Your task to perform on an android device: Is it going to rain this weekend? Image 0: 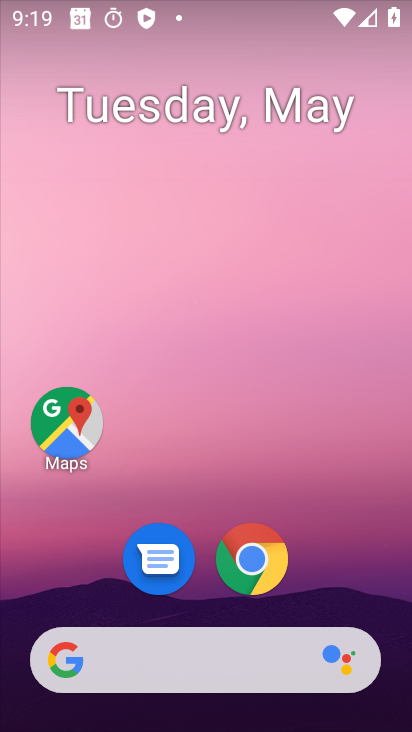
Step 0: drag from (342, 628) to (152, 194)
Your task to perform on an android device: Is it going to rain this weekend? Image 1: 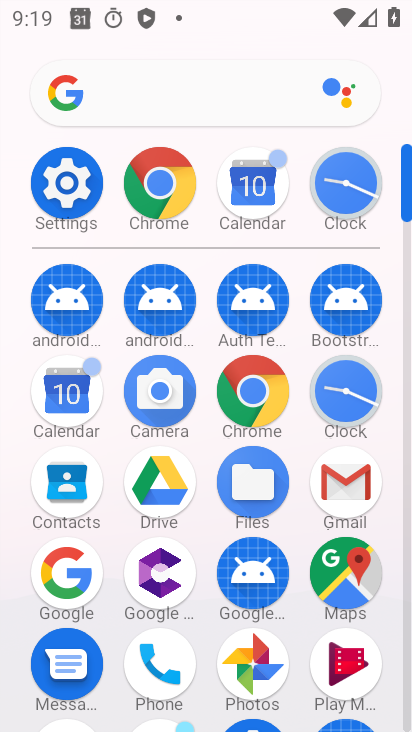
Step 1: press back button
Your task to perform on an android device: Is it going to rain this weekend? Image 2: 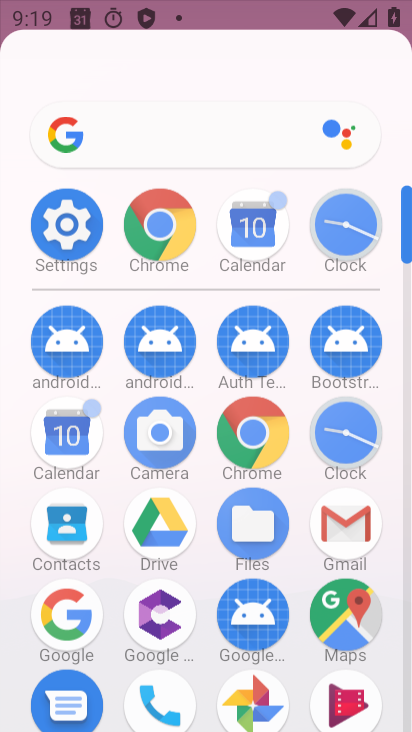
Step 2: press back button
Your task to perform on an android device: Is it going to rain this weekend? Image 3: 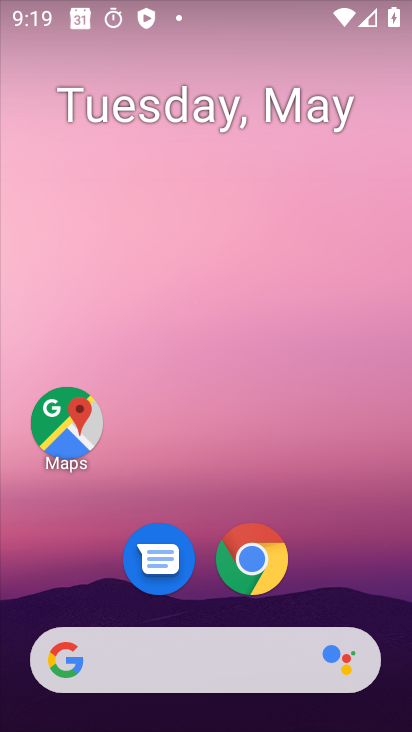
Step 3: drag from (7, 247) to (394, 411)
Your task to perform on an android device: Is it going to rain this weekend? Image 4: 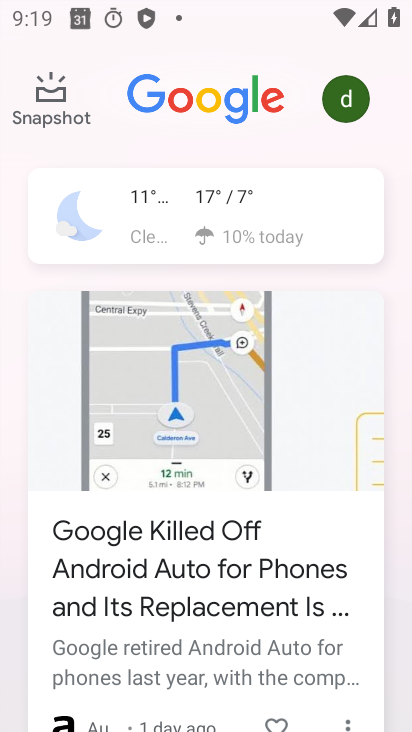
Step 4: click (181, 216)
Your task to perform on an android device: Is it going to rain this weekend? Image 5: 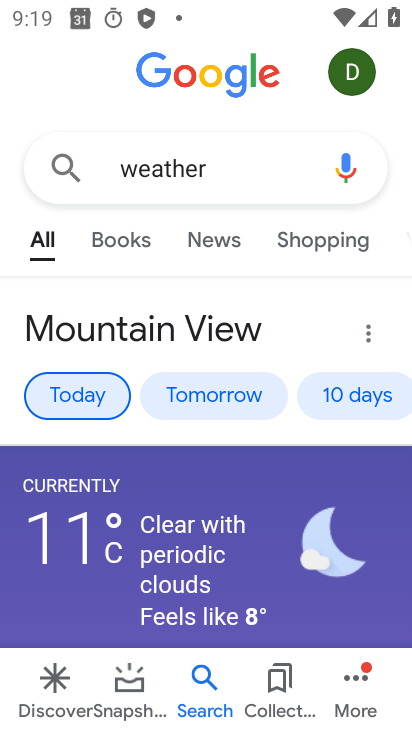
Step 5: drag from (242, 599) to (170, 433)
Your task to perform on an android device: Is it going to rain this weekend? Image 6: 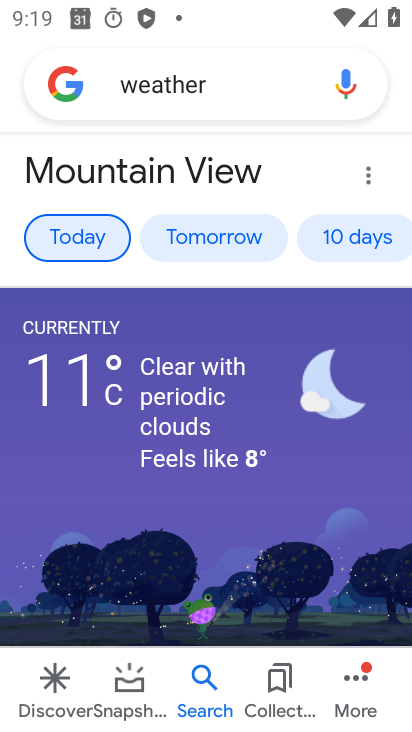
Step 6: drag from (235, 490) to (227, 288)
Your task to perform on an android device: Is it going to rain this weekend? Image 7: 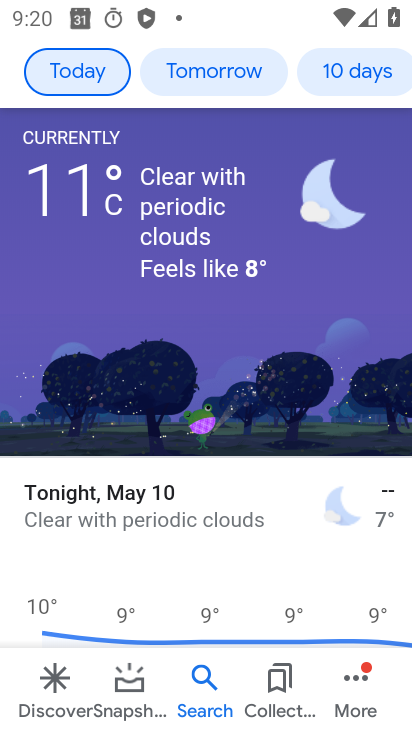
Step 7: drag from (196, 606) to (171, 276)
Your task to perform on an android device: Is it going to rain this weekend? Image 8: 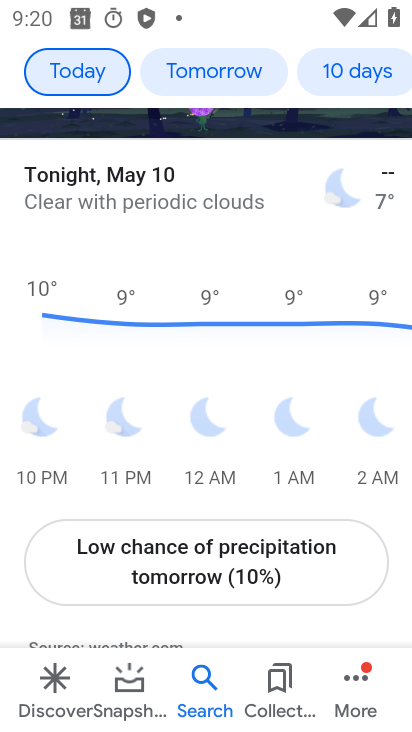
Step 8: drag from (284, 527) to (276, 169)
Your task to perform on an android device: Is it going to rain this weekend? Image 9: 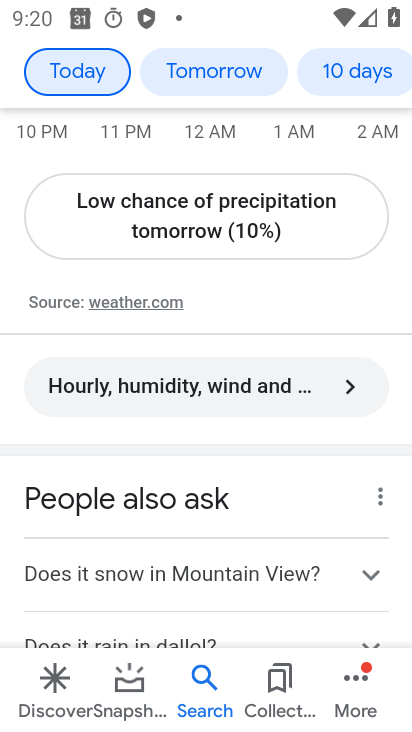
Step 9: drag from (237, 553) to (240, 186)
Your task to perform on an android device: Is it going to rain this weekend? Image 10: 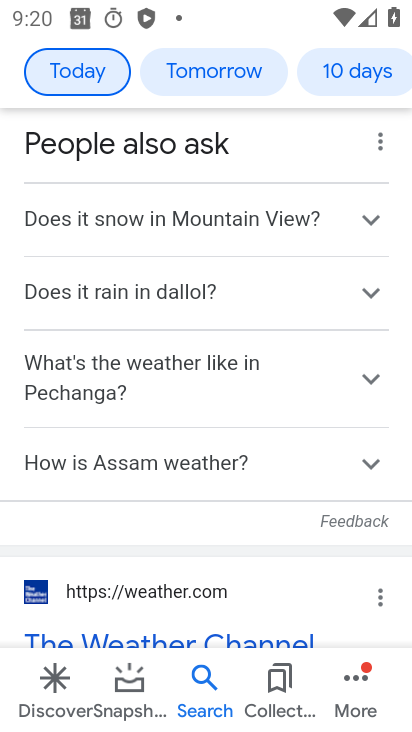
Step 10: drag from (275, 448) to (275, 164)
Your task to perform on an android device: Is it going to rain this weekend? Image 11: 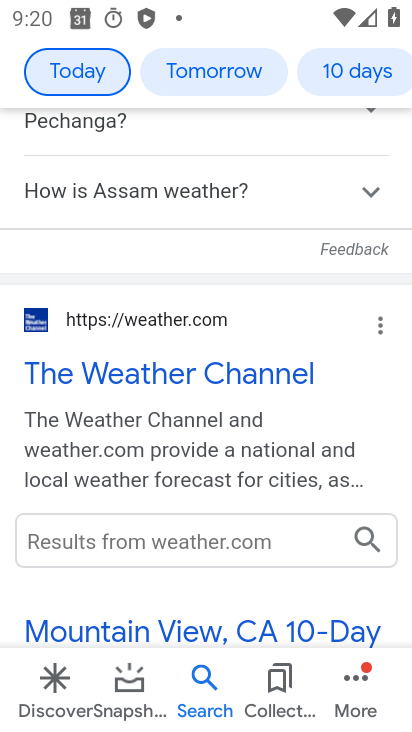
Step 11: drag from (265, 463) to (264, 135)
Your task to perform on an android device: Is it going to rain this weekend? Image 12: 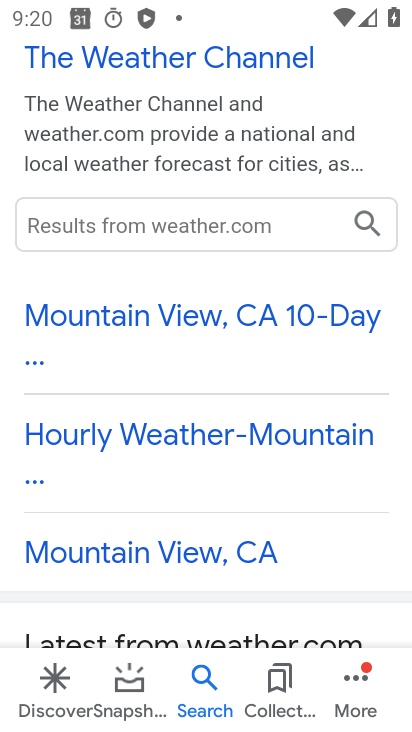
Step 12: drag from (259, 382) to (231, 120)
Your task to perform on an android device: Is it going to rain this weekend? Image 13: 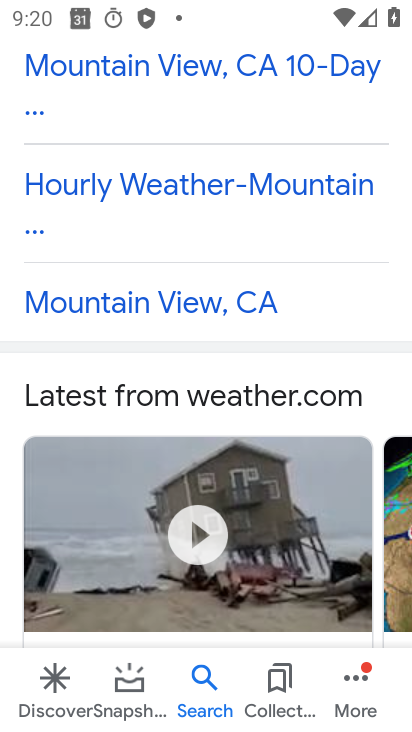
Step 13: drag from (243, 464) to (253, 103)
Your task to perform on an android device: Is it going to rain this weekend? Image 14: 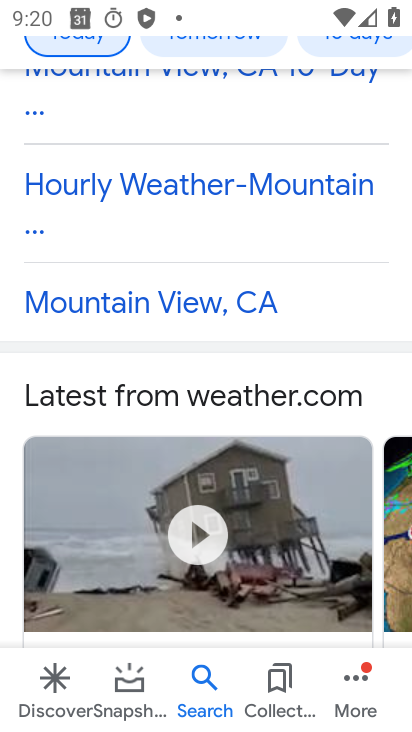
Step 14: drag from (282, 467) to (280, 130)
Your task to perform on an android device: Is it going to rain this weekend? Image 15: 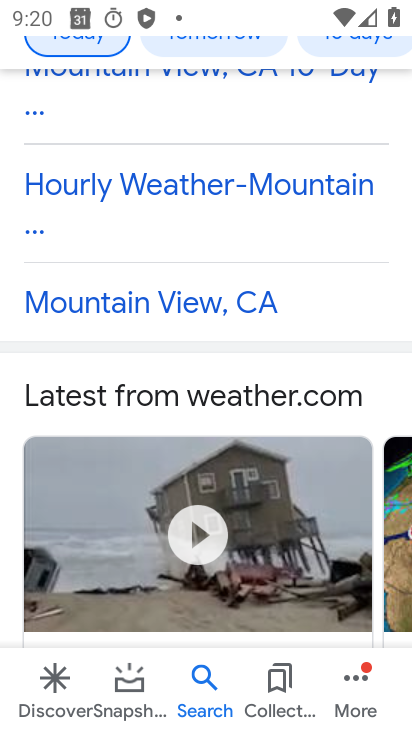
Step 15: drag from (248, 540) to (231, 253)
Your task to perform on an android device: Is it going to rain this weekend? Image 16: 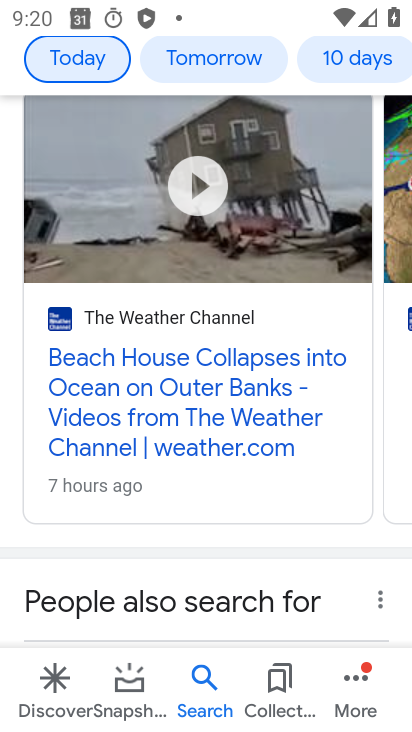
Step 16: drag from (262, 428) to (271, 189)
Your task to perform on an android device: Is it going to rain this weekend? Image 17: 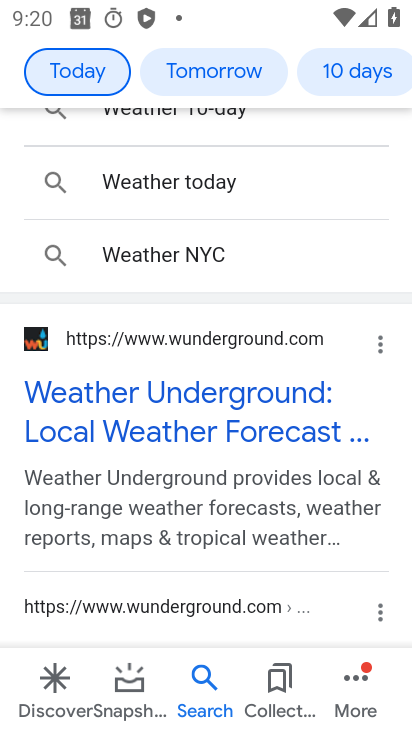
Step 17: drag from (251, 219) to (380, 710)
Your task to perform on an android device: Is it going to rain this weekend? Image 18: 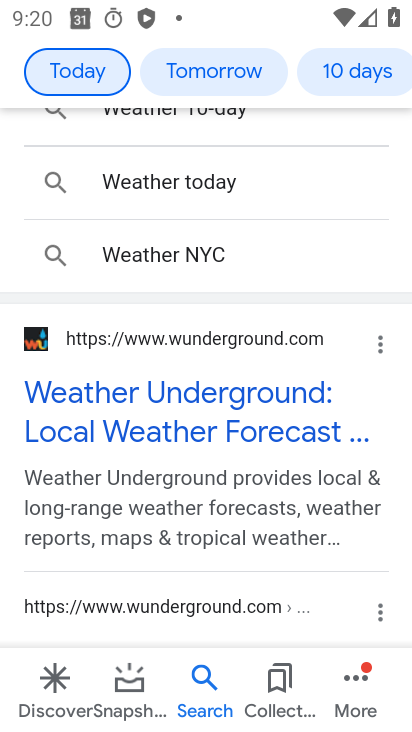
Step 18: drag from (280, 300) to (394, 576)
Your task to perform on an android device: Is it going to rain this weekend? Image 19: 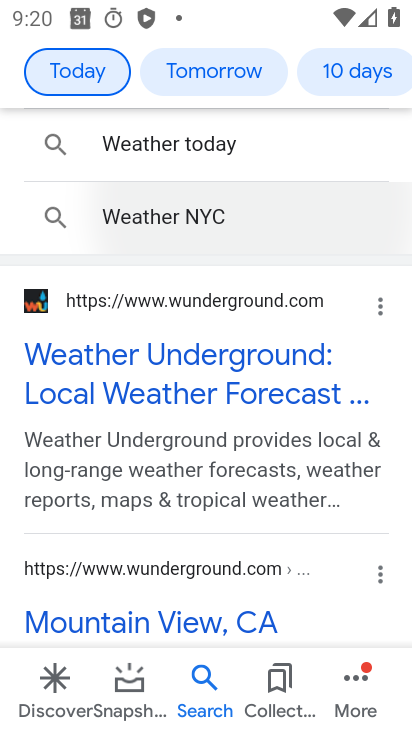
Step 19: drag from (194, 220) to (252, 543)
Your task to perform on an android device: Is it going to rain this weekend? Image 20: 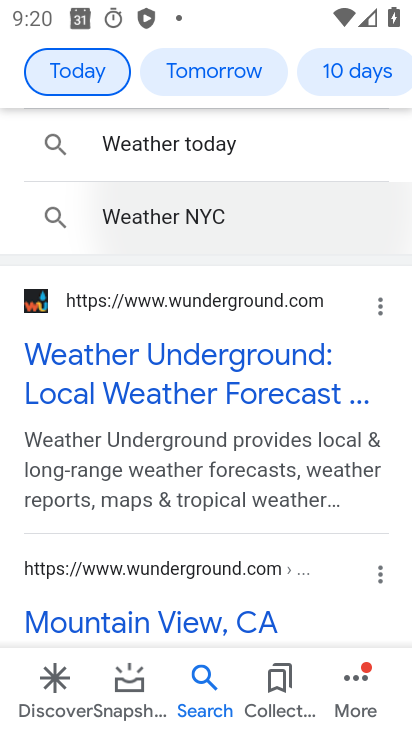
Step 20: drag from (163, 272) to (347, 610)
Your task to perform on an android device: Is it going to rain this weekend? Image 21: 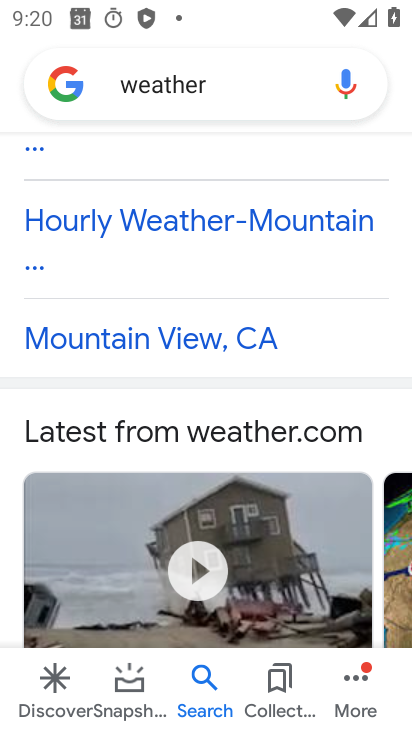
Step 21: drag from (164, 236) to (271, 600)
Your task to perform on an android device: Is it going to rain this weekend? Image 22: 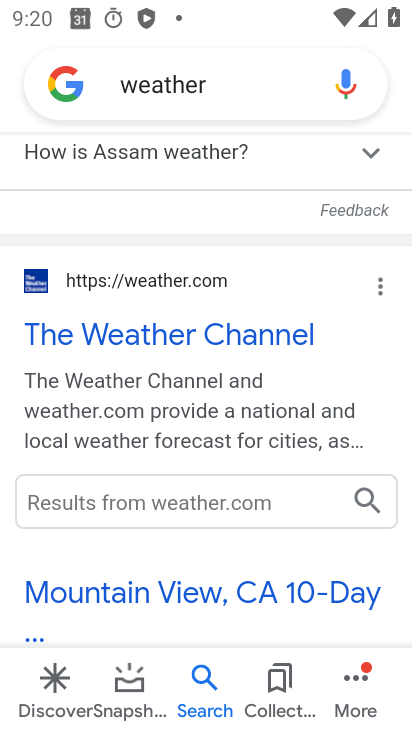
Step 22: drag from (232, 318) to (318, 622)
Your task to perform on an android device: Is it going to rain this weekend? Image 23: 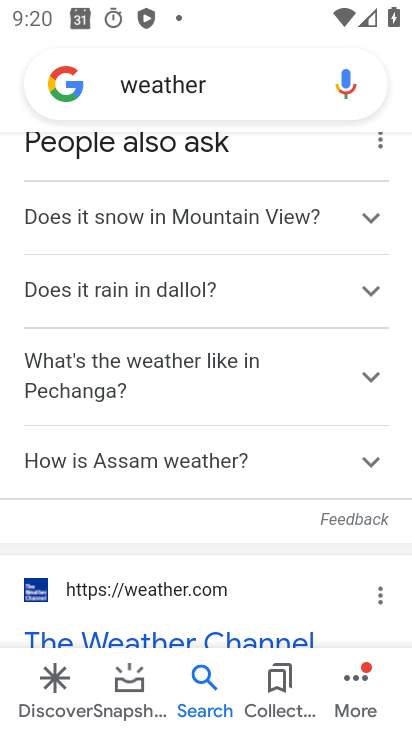
Step 23: drag from (244, 236) to (326, 582)
Your task to perform on an android device: Is it going to rain this weekend? Image 24: 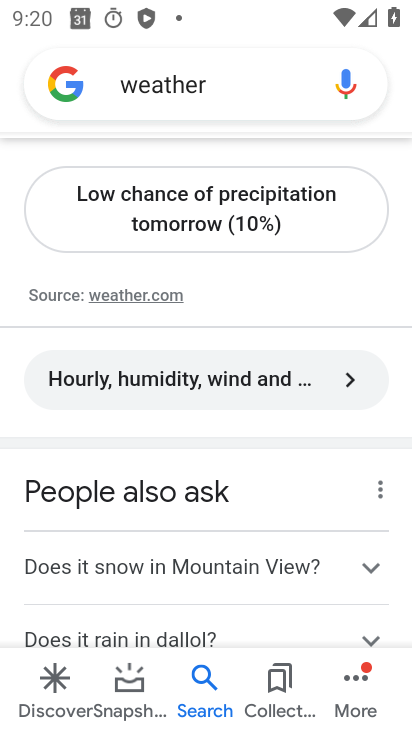
Step 24: drag from (249, 256) to (341, 589)
Your task to perform on an android device: Is it going to rain this weekend? Image 25: 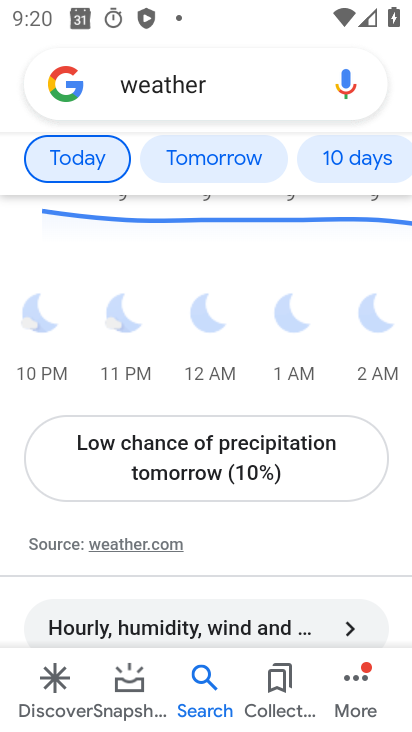
Step 25: drag from (253, 288) to (410, 716)
Your task to perform on an android device: Is it going to rain this weekend? Image 26: 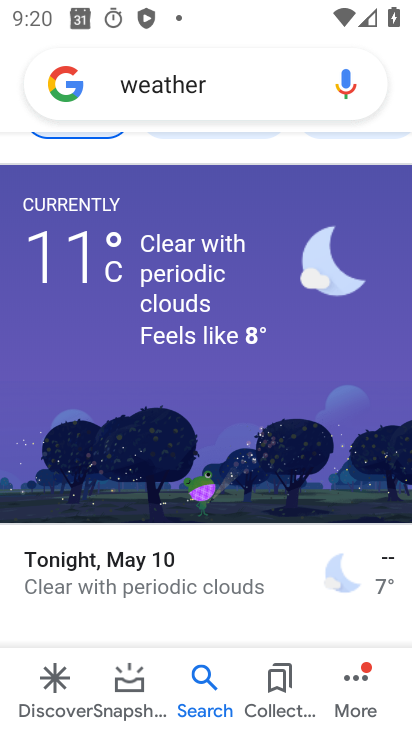
Step 26: drag from (296, 327) to (330, 441)
Your task to perform on an android device: Is it going to rain this weekend? Image 27: 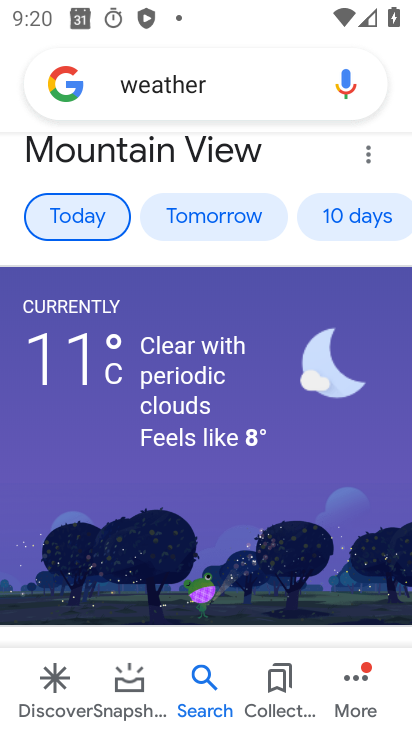
Step 27: drag from (272, 259) to (328, 450)
Your task to perform on an android device: Is it going to rain this weekend? Image 28: 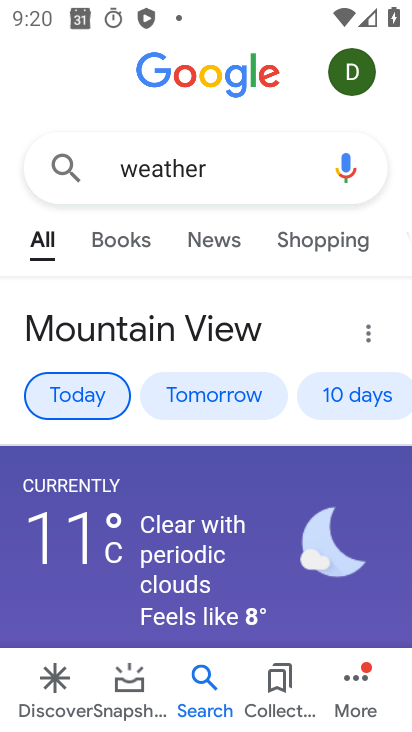
Step 28: click (346, 405)
Your task to perform on an android device: Is it going to rain this weekend? Image 29: 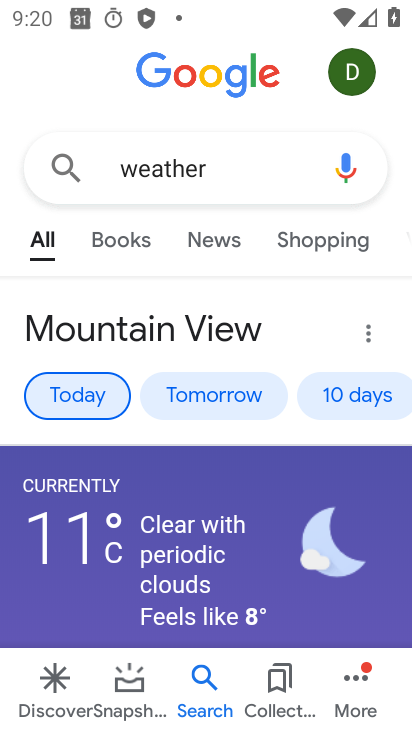
Step 29: click (351, 402)
Your task to perform on an android device: Is it going to rain this weekend? Image 30: 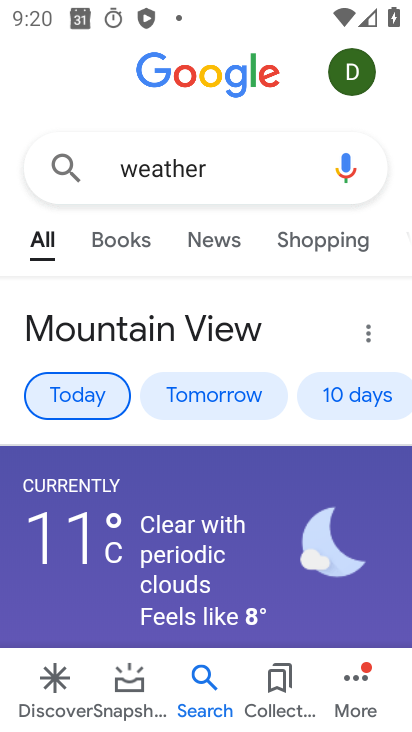
Step 30: click (353, 403)
Your task to perform on an android device: Is it going to rain this weekend? Image 31: 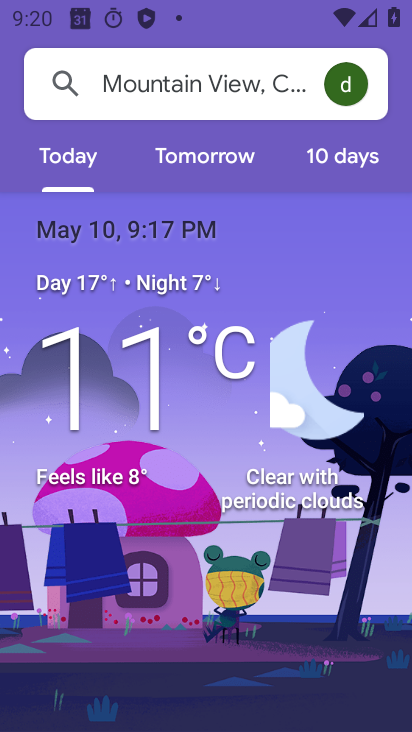
Step 31: task complete